Your task to perform on an android device: check android version Image 0: 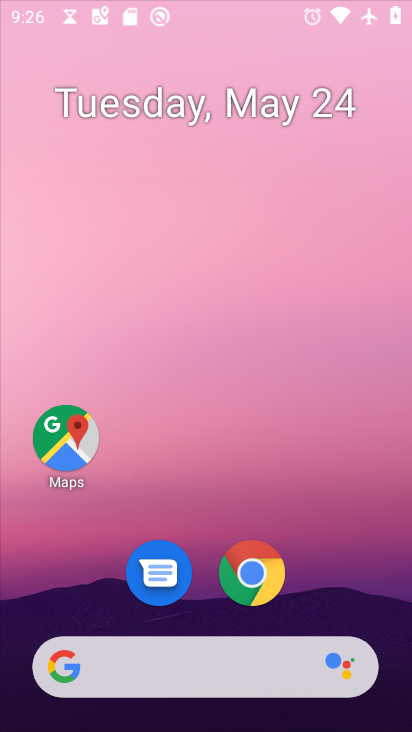
Step 0: click (308, 18)
Your task to perform on an android device: check android version Image 1: 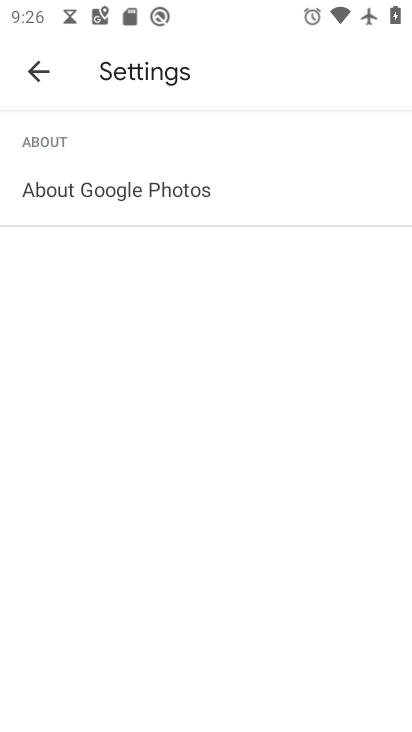
Step 1: press home button
Your task to perform on an android device: check android version Image 2: 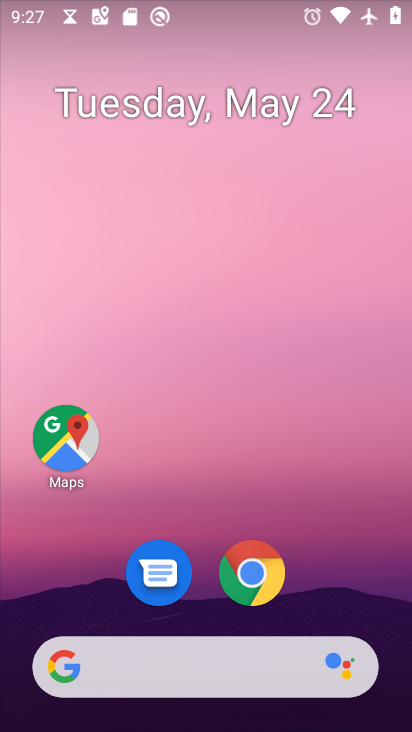
Step 2: drag from (344, 598) to (341, 59)
Your task to perform on an android device: check android version Image 3: 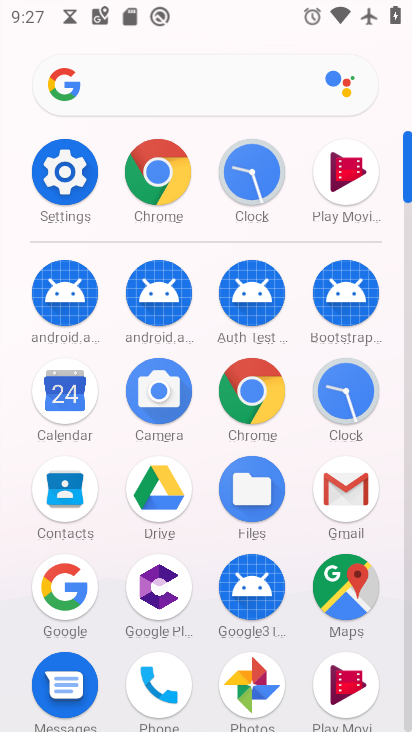
Step 3: click (59, 184)
Your task to perform on an android device: check android version Image 4: 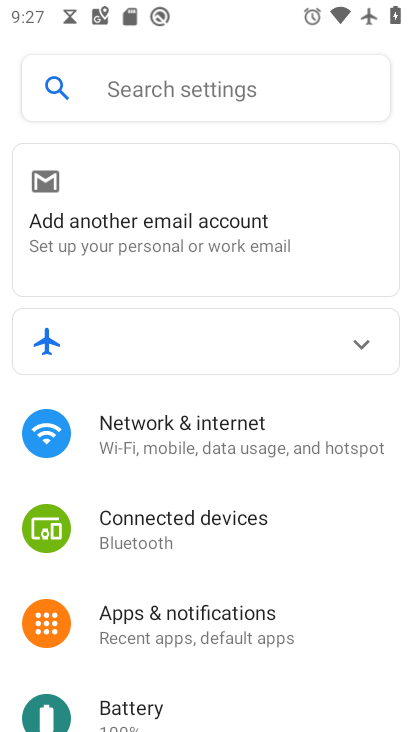
Step 4: drag from (291, 633) to (290, 191)
Your task to perform on an android device: check android version Image 5: 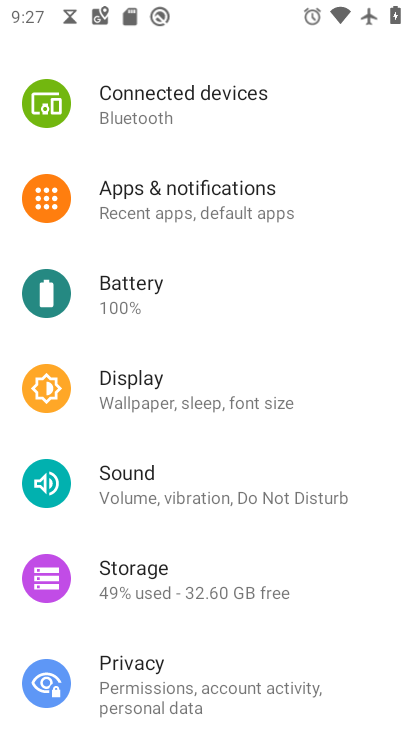
Step 5: drag from (261, 606) to (221, 106)
Your task to perform on an android device: check android version Image 6: 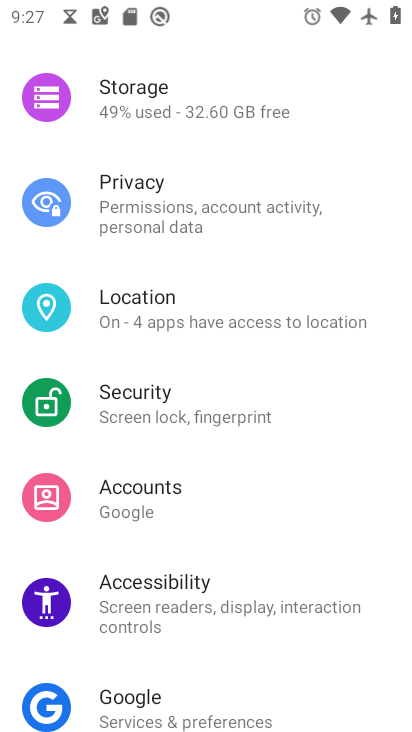
Step 6: drag from (171, 593) to (150, 66)
Your task to perform on an android device: check android version Image 7: 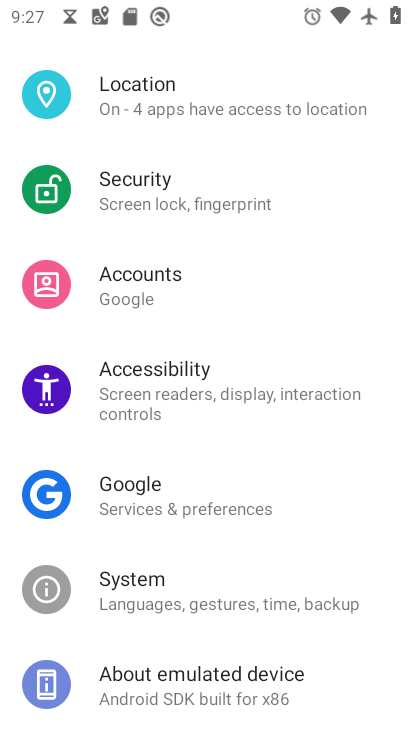
Step 7: drag from (130, 662) to (132, 307)
Your task to perform on an android device: check android version Image 8: 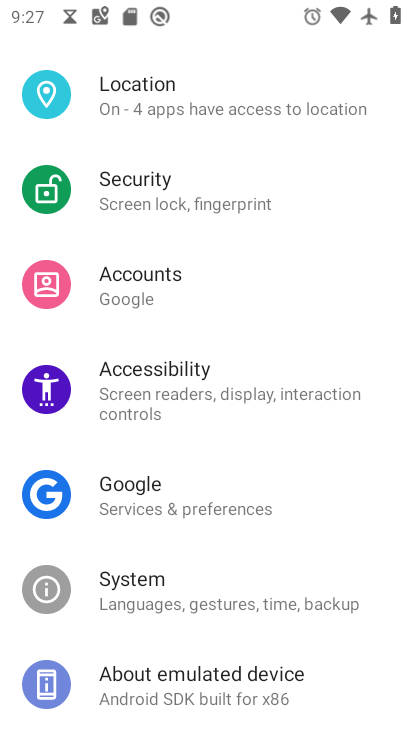
Step 8: click (178, 676)
Your task to perform on an android device: check android version Image 9: 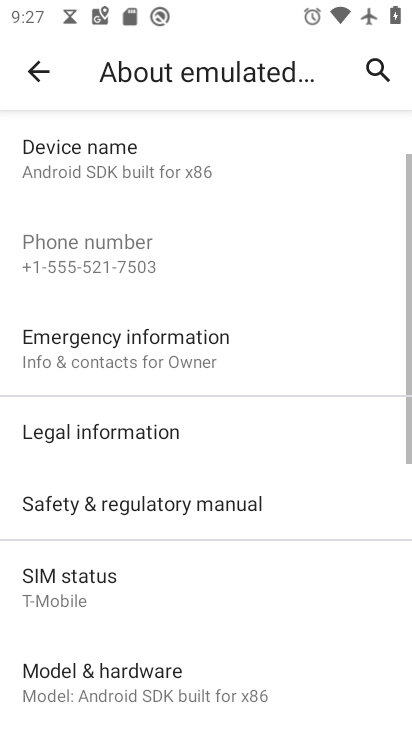
Step 9: drag from (220, 673) to (194, 304)
Your task to perform on an android device: check android version Image 10: 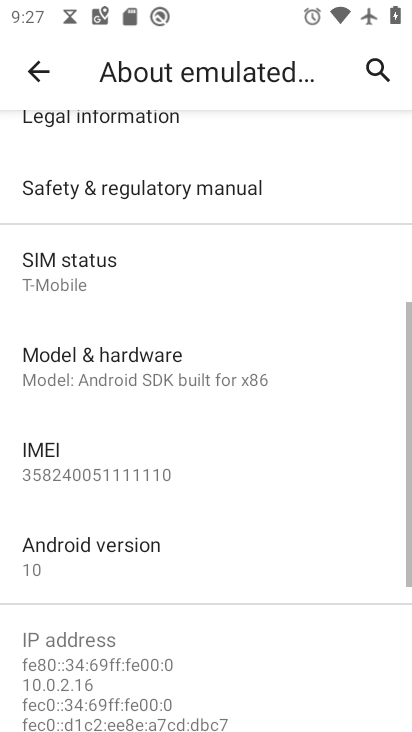
Step 10: click (60, 553)
Your task to perform on an android device: check android version Image 11: 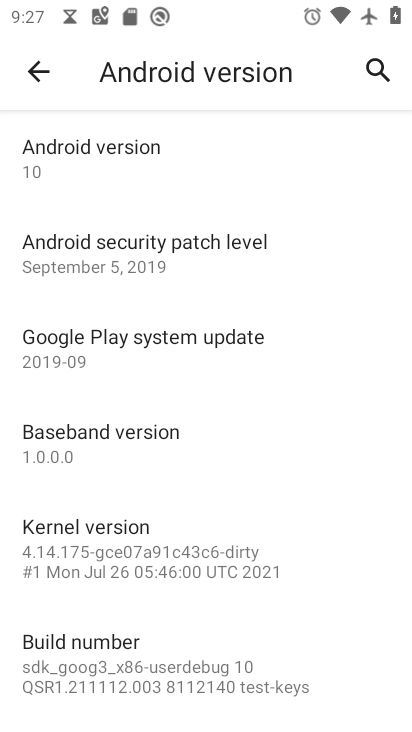
Step 11: task complete